Your task to perform on an android device: turn off location Image 0: 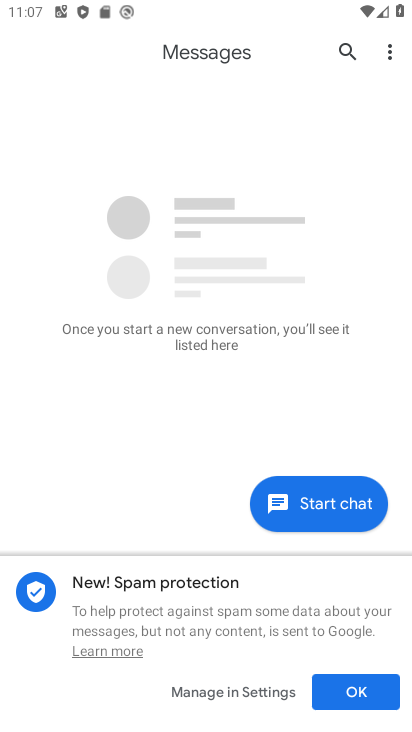
Step 0: press home button
Your task to perform on an android device: turn off location Image 1: 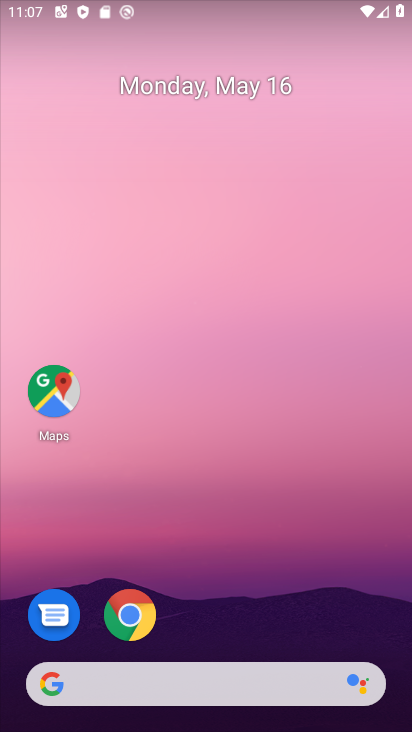
Step 1: drag from (207, 723) to (200, 313)
Your task to perform on an android device: turn off location Image 2: 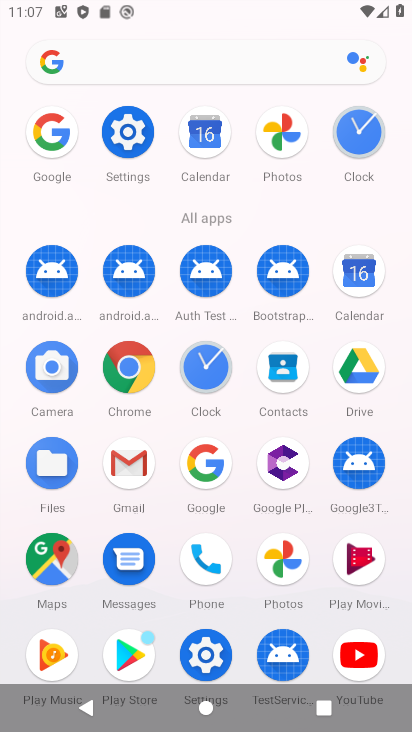
Step 2: click (122, 128)
Your task to perform on an android device: turn off location Image 3: 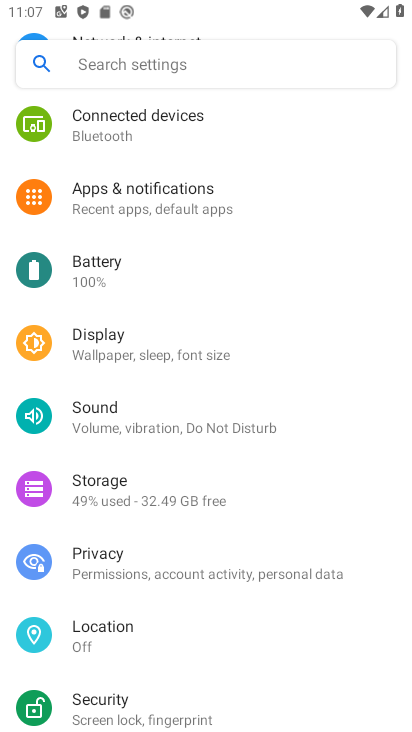
Step 3: click (98, 611)
Your task to perform on an android device: turn off location Image 4: 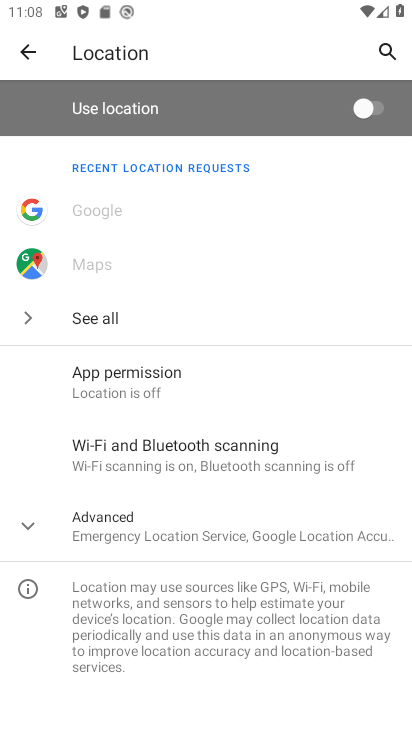
Step 4: task complete